Your task to perform on an android device: empty trash in the gmail app Image 0: 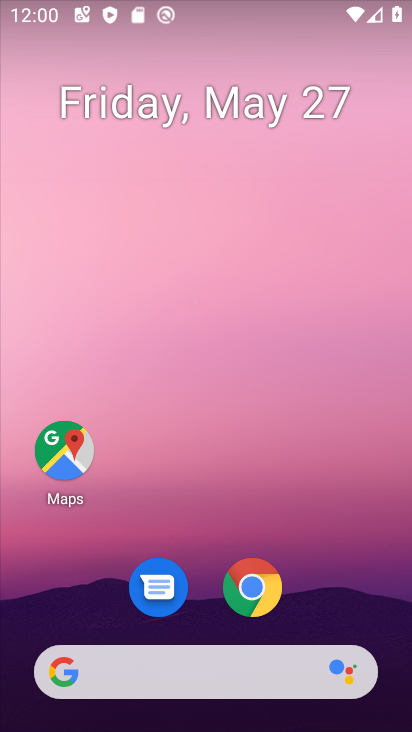
Step 0: drag from (142, 678) to (143, 113)
Your task to perform on an android device: empty trash in the gmail app Image 1: 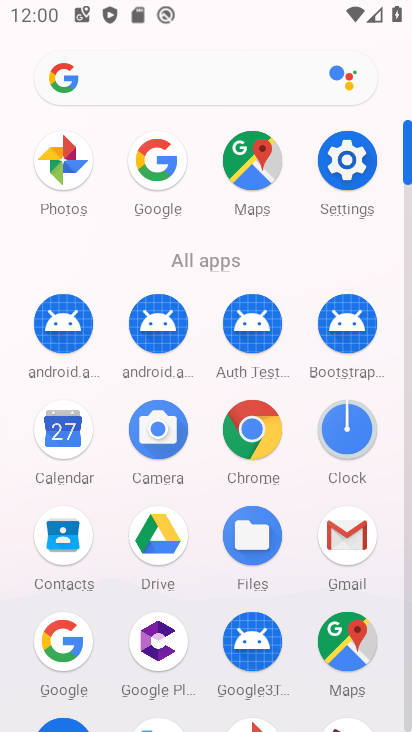
Step 1: click (349, 549)
Your task to perform on an android device: empty trash in the gmail app Image 2: 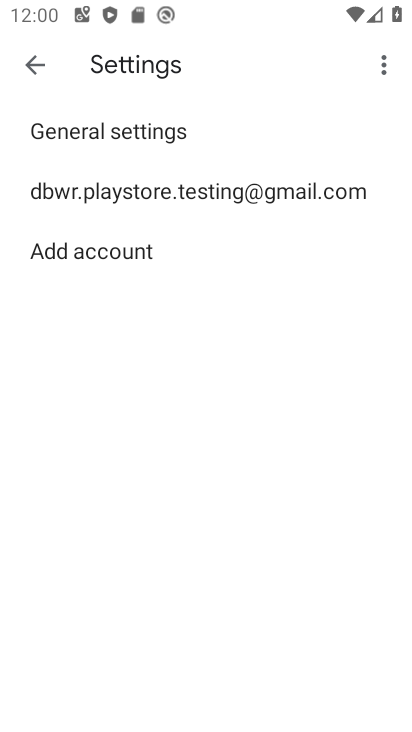
Step 2: click (41, 62)
Your task to perform on an android device: empty trash in the gmail app Image 3: 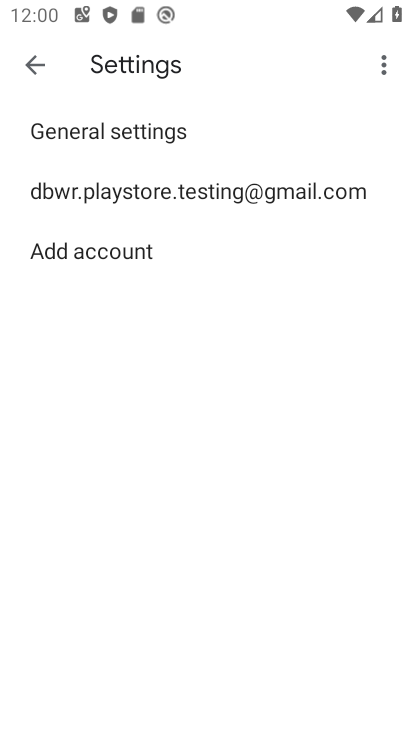
Step 3: click (42, 61)
Your task to perform on an android device: empty trash in the gmail app Image 4: 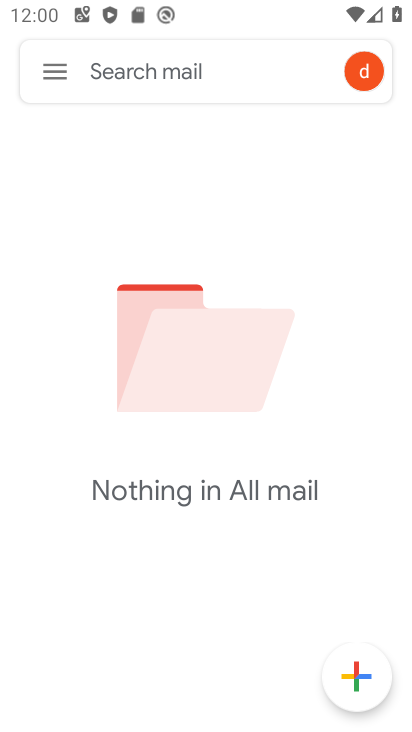
Step 4: click (52, 69)
Your task to perform on an android device: empty trash in the gmail app Image 5: 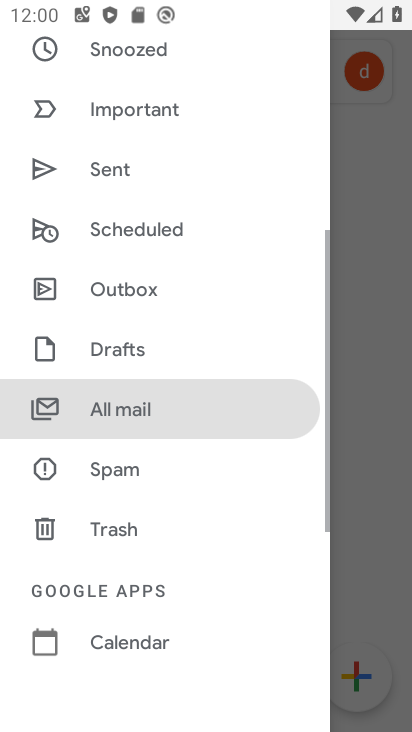
Step 5: click (125, 535)
Your task to perform on an android device: empty trash in the gmail app Image 6: 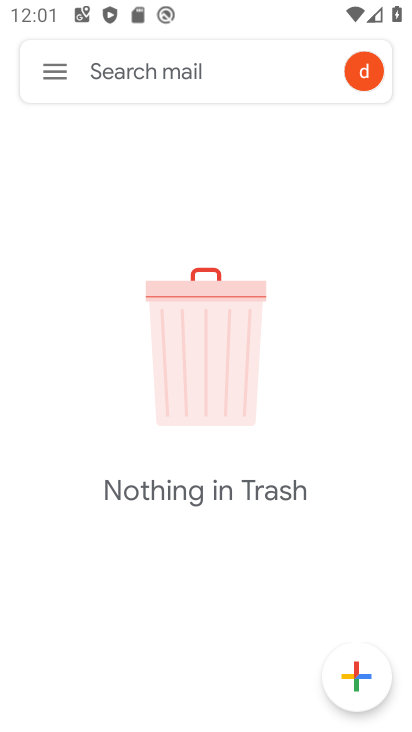
Step 6: task complete